Your task to perform on an android device: Do I have any events today? Image 0: 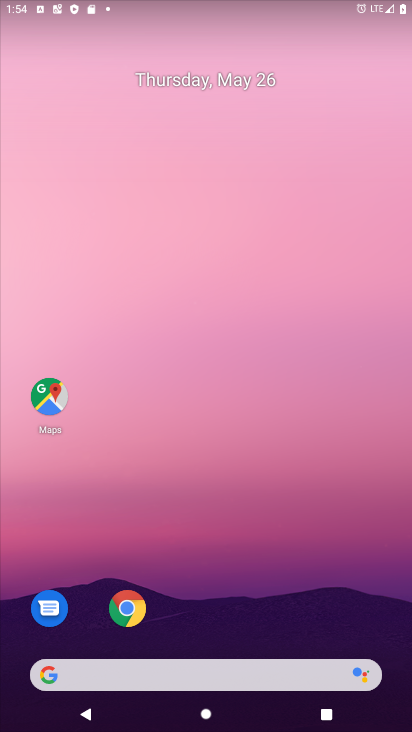
Step 0: drag from (354, 615) to (327, 106)
Your task to perform on an android device: Do I have any events today? Image 1: 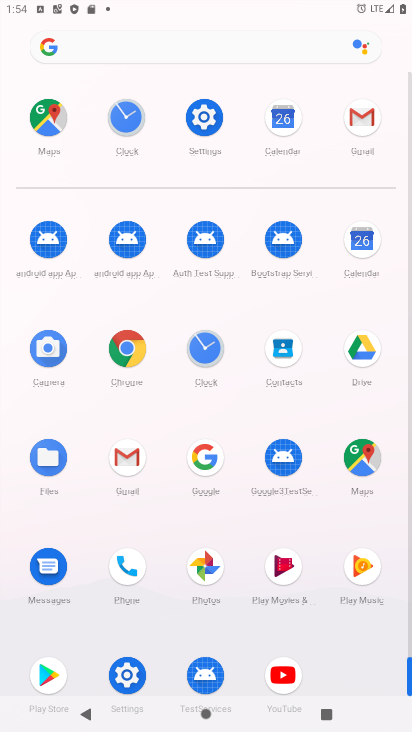
Step 1: click (357, 241)
Your task to perform on an android device: Do I have any events today? Image 2: 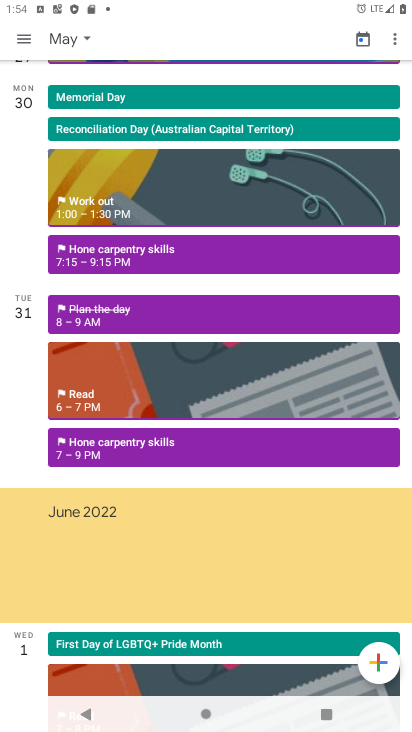
Step 2: click (29, 50)
Your task to perform on an android device: Do I have any events today? Image 3: 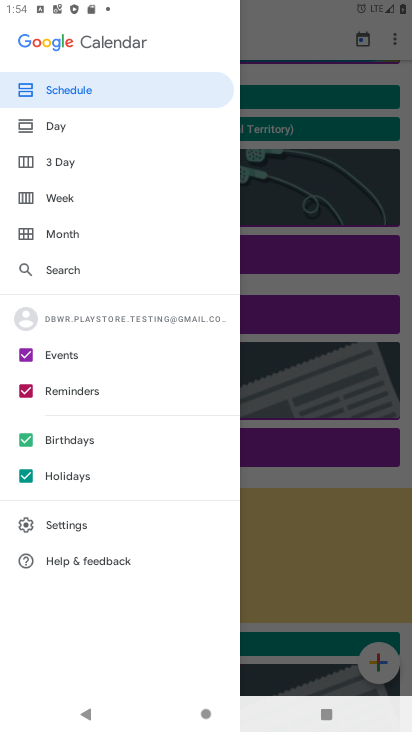
Step 3: click (59, 120)
Your task to perform on an android device: Do I have any events today? Image 4: 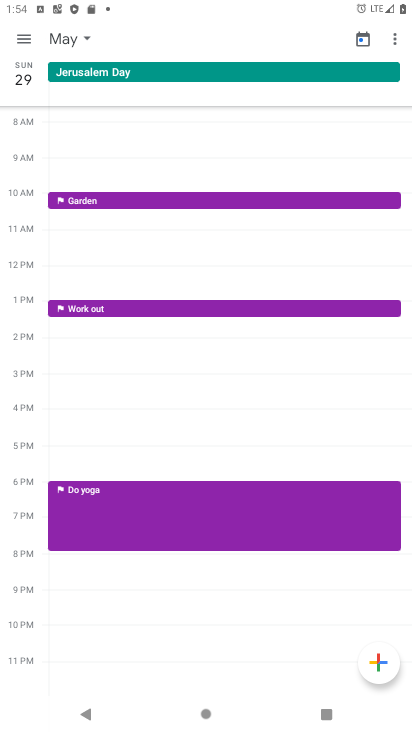
Step 4: click (81, 37)
Your task to perform on an android device: Do I have any events today? Image 5: 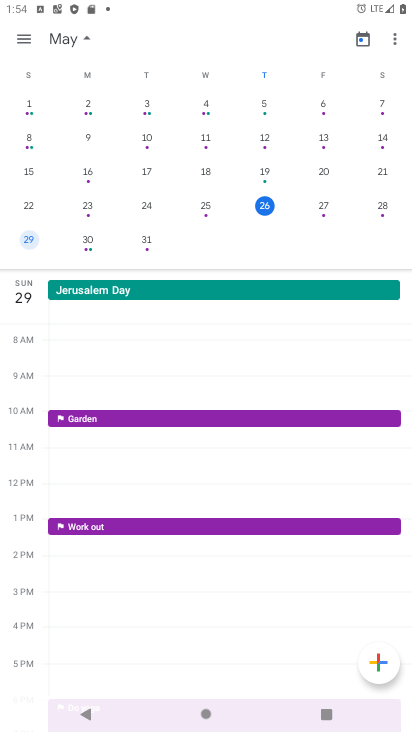
Step 5: click (266, 204)
Your task to perform on an android device: Do I have any events today? Image 6: 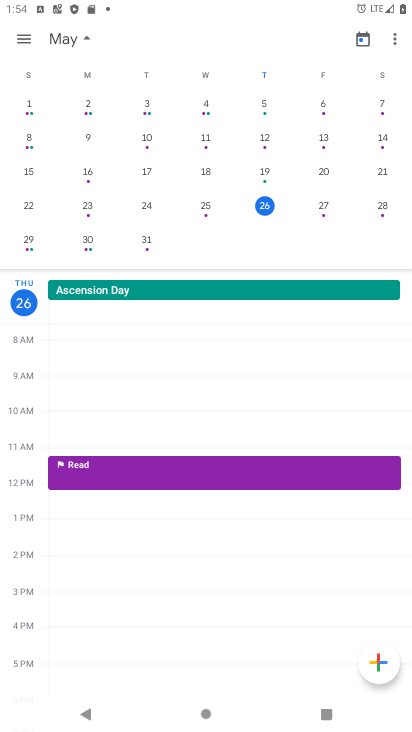
Step 6: task complete